Your task to perform on an android device: Open settings on Google Maps Image 0: 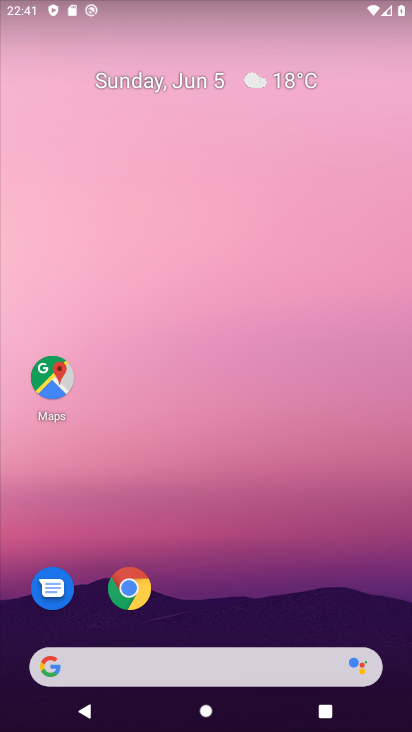
Step 0: drag from (263, 552) to (284, 169)
Your task to perform on an android device: Open settings on Google Maps Image 1: 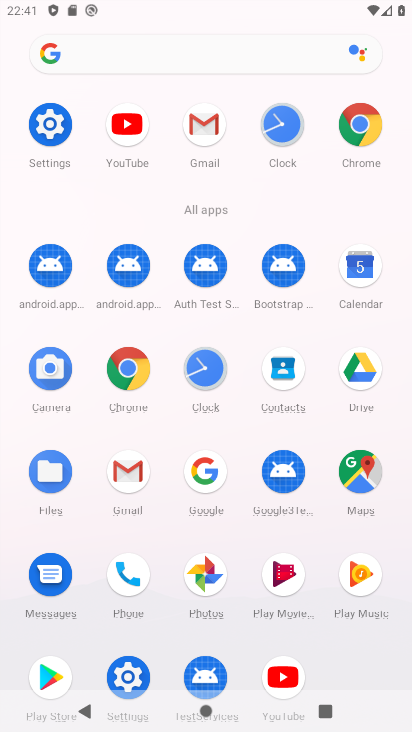
Step 1: click (342, 479)
Your task to perform on an android device: Open settings on Google Maps Image 2: 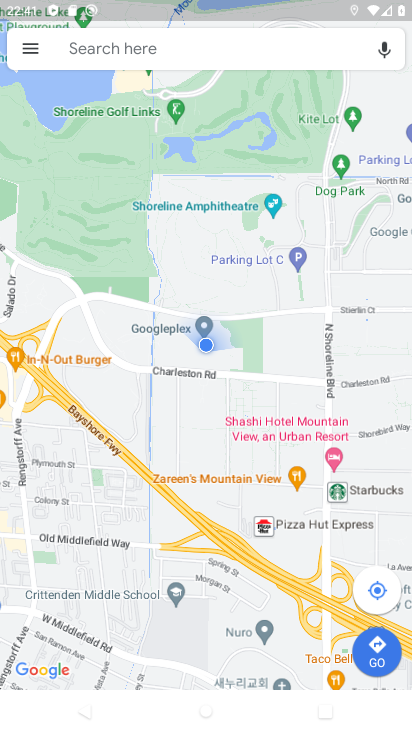
Step 2: task complete